Your task to perform on an android device: Go to Maps Image 0: 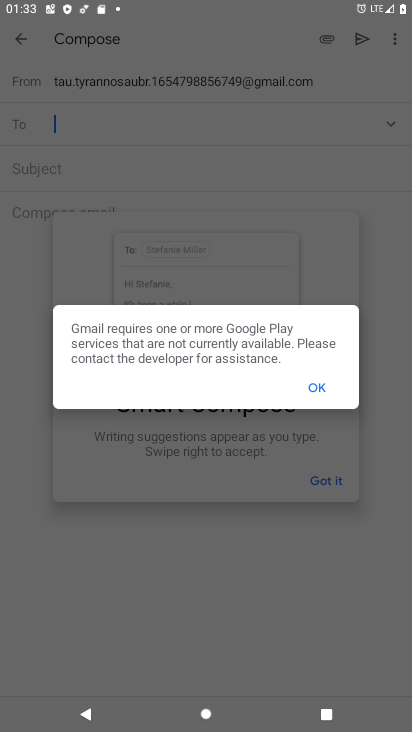
Step 0: press home button
Your task to perform on an android device: Go to Maps Image 1: 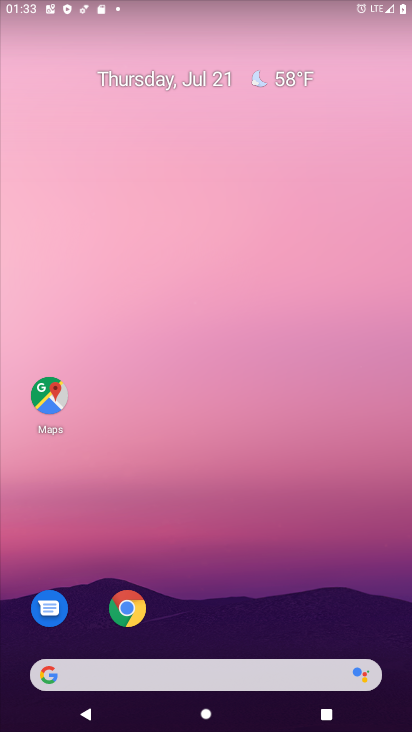
Step 1: click (46, 391)
Your task to perform on an android device: Go to Maps Image 2: 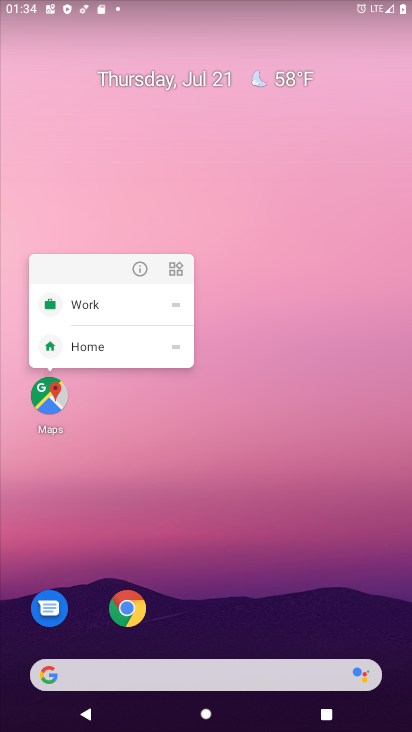
Step 2: click (52, 387)
Your task to perform on an android device: Go to Maps Image 3: 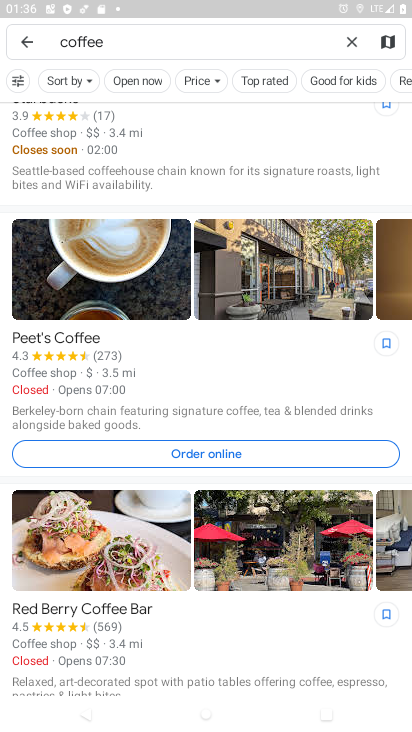
Step 3: click (31, 40)
Your task to perform on an android device: Go to Maps Image 4: 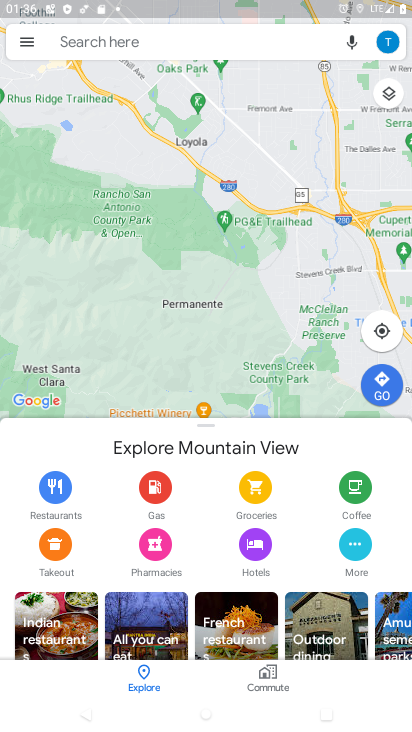
Step 4: task complete